Your task to perform on an android device: Do I have any events tomorrow? Image 0: 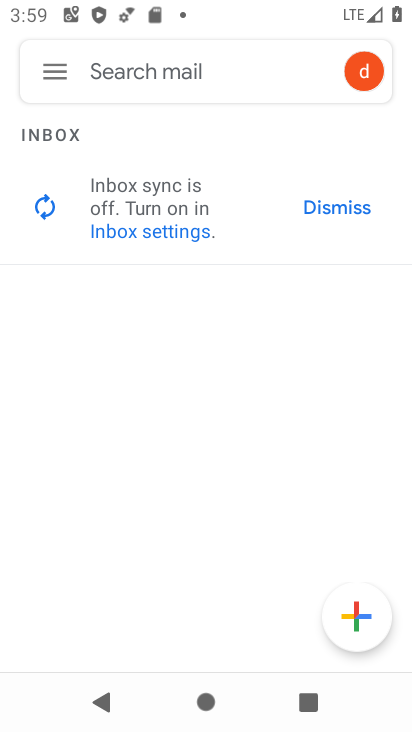
Step 0: press home button
Your task to perform on an android device: Do I have any events tomorrow? Image 1: 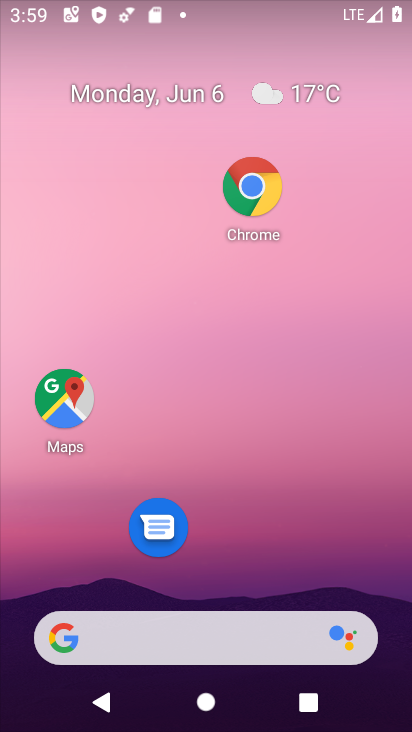
Step 1: drag from (172, 620) to (172, 351)
Your task to perform on an android device: Do I have any events tomorrow? Image 2: 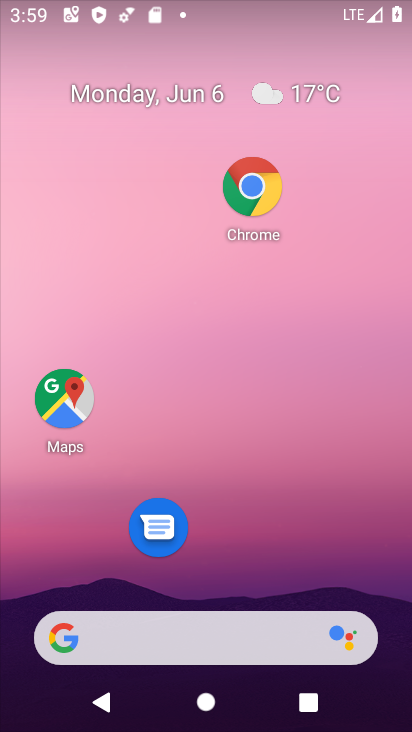
Step 2: click (153, 365)
Your task to perform on an android device: Do I have any events tomorrow? Image 3: 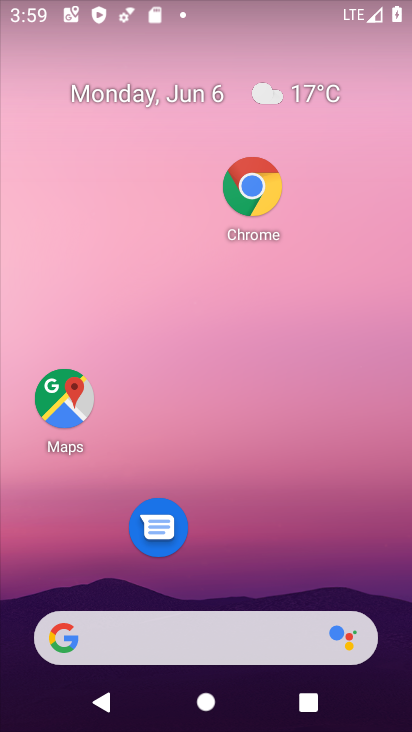
Step 3: drag from (239, 555) to (223, 237)
Your task to perform on an android device: Do I have any events tomorrow? Image 4: 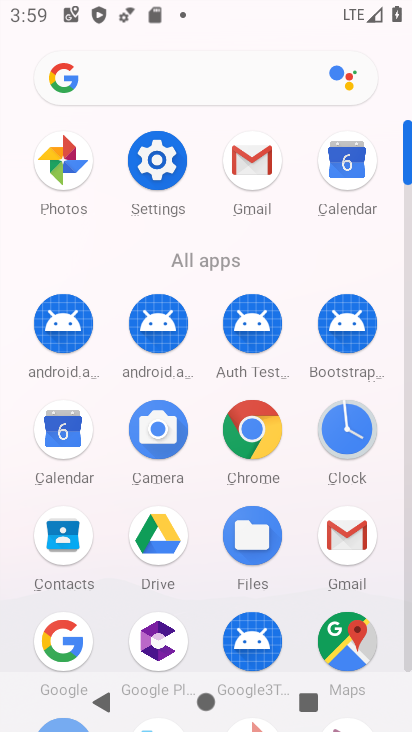
Step 4: click (63, 443)
Your task to perform on an android device: Do I have any events tomorrow? Image 5: 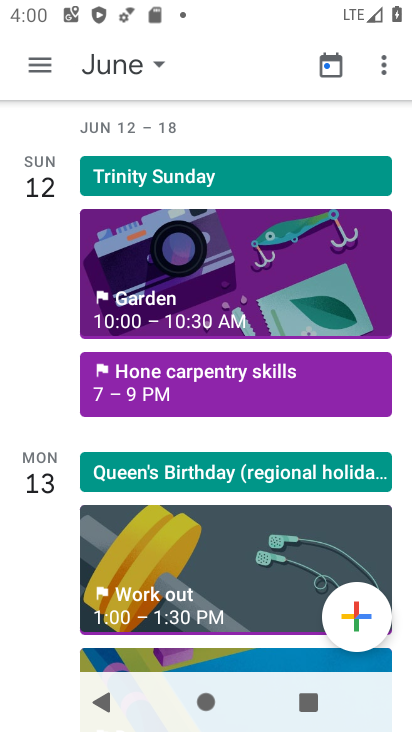
Step 5: click (141, 65)
Your task to perform on an android device: Do I have any events tomorrow? Image 6: 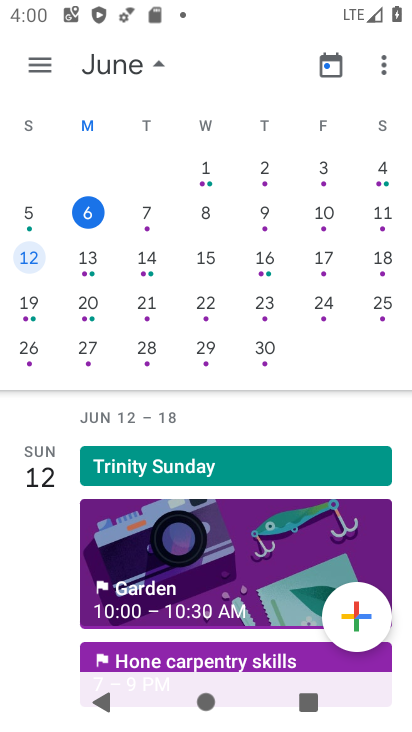
Step 6: click (141, 218)
Your task to perform on an android device: Do I have any events tomorrow? Image 7: 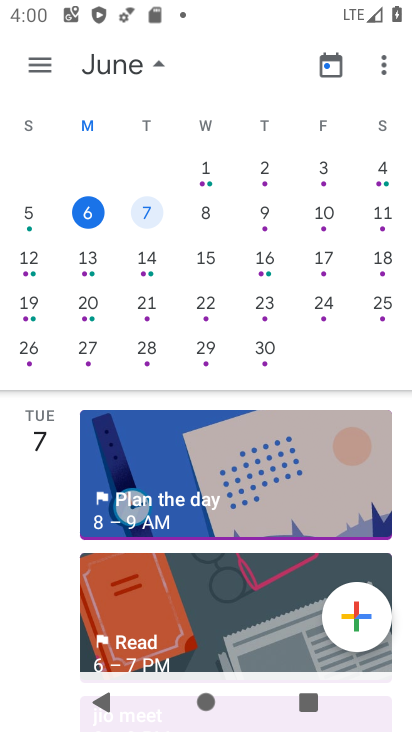
Step 7: click (209, 472)
Your task to perform on an android device: Do I have any events tomorrow? Image 8: 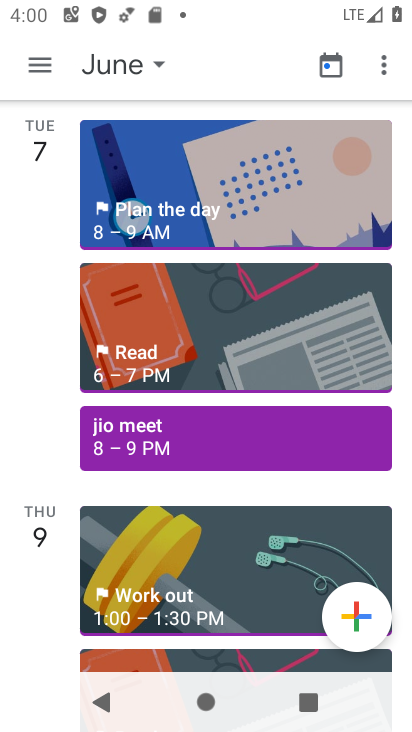
Step 8: task complete